Your task to perform on an android device: Open eBay Image 0: 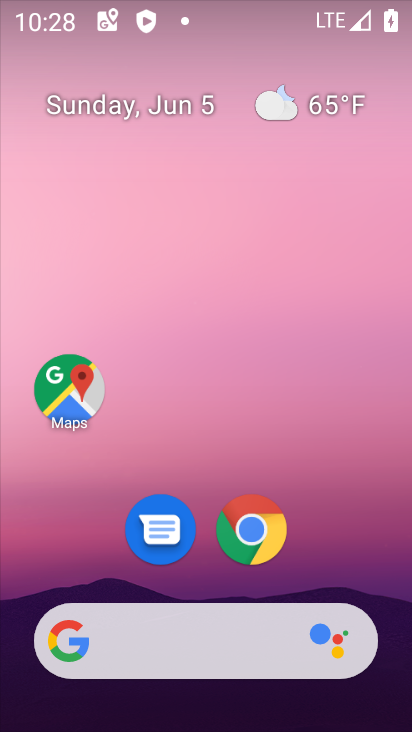
Step 0: click (187, 655)
Your task to perform on an android device: Open eBay Image 1: 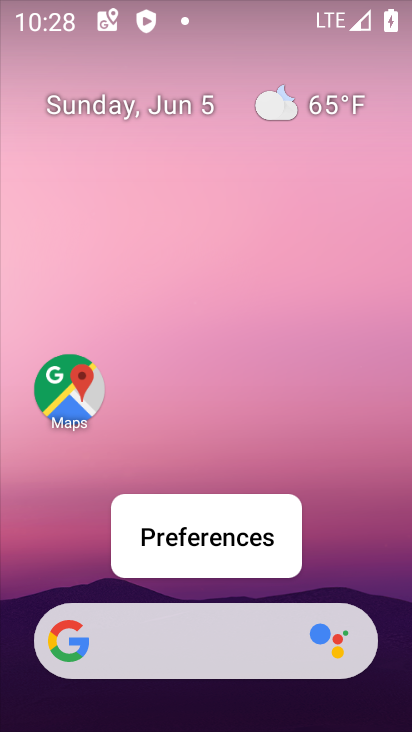
Step 1: click (267, 660)
Your task to perform on an android device: Open eBay Image 2: 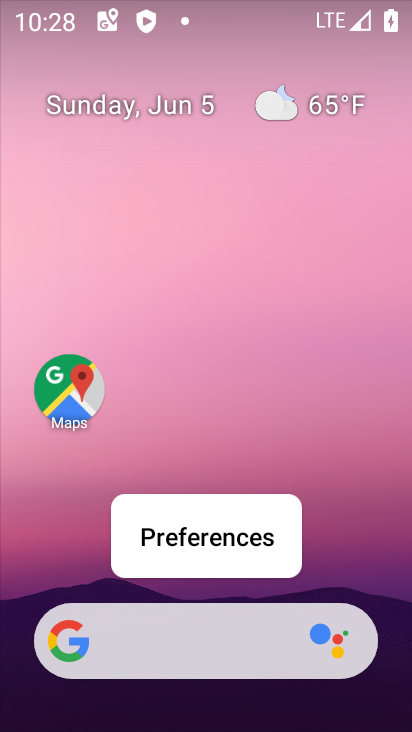
Step 2: click (266, 632)
Your task to perform on an android device: Open eBay Image 3: 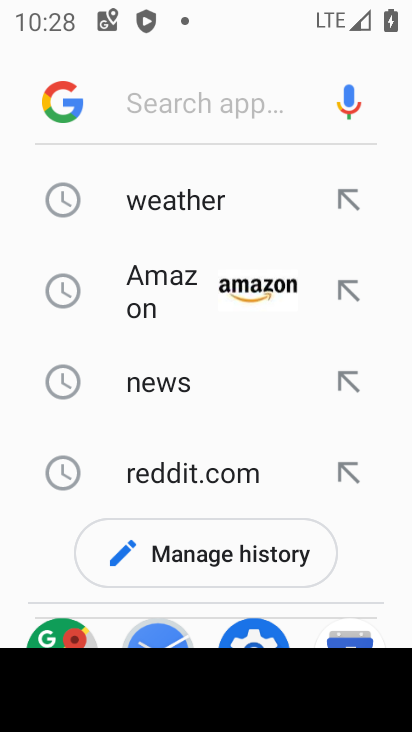
Step 3: type "ebay"
Your task to perform on an android device: Open eBay Image 4: 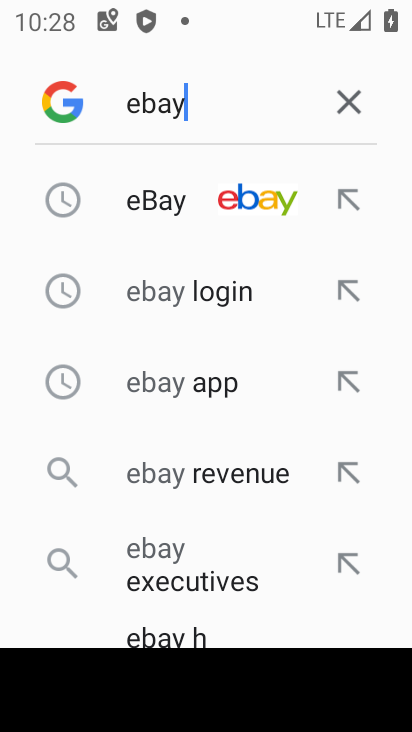
Step 4: click (289, 173)
Your task to perform on an android device: Open eBay Image 5: 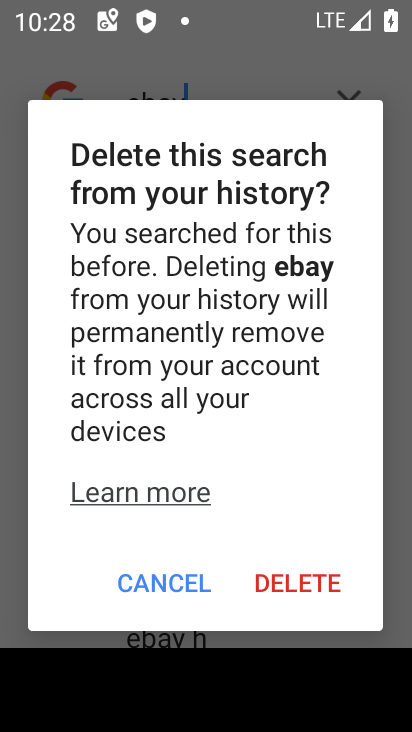
Step 5: click (173, 582)
Your task to perform on an android device: Open eBay Image 6: 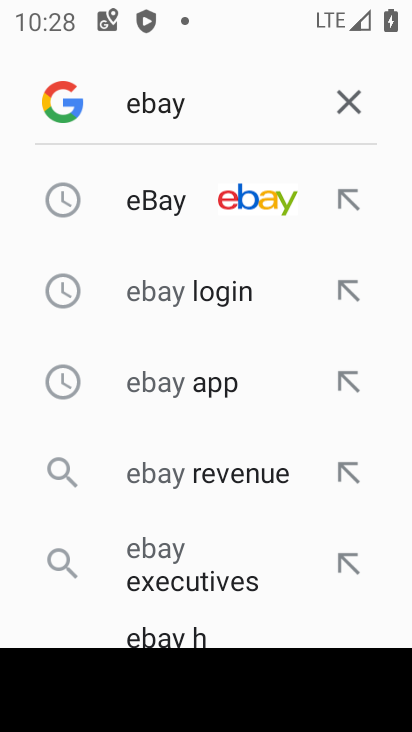
Step 6: click (270, 201)
Your task to perform on an android device: Open eBay Image 7: 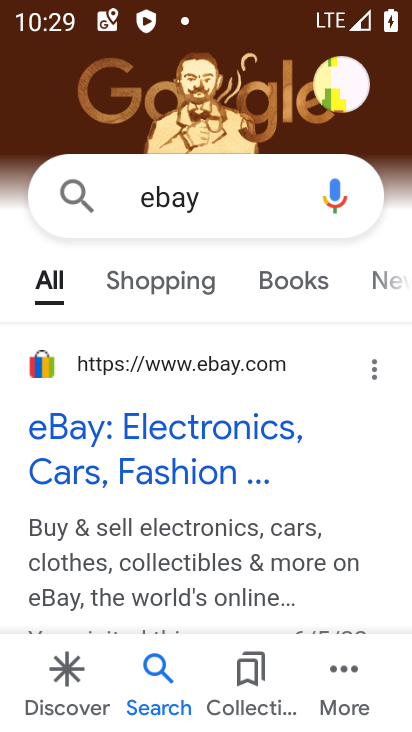
Step 7: click (182, 367)
Your task to perform on an android device: Open eBay Image 8: 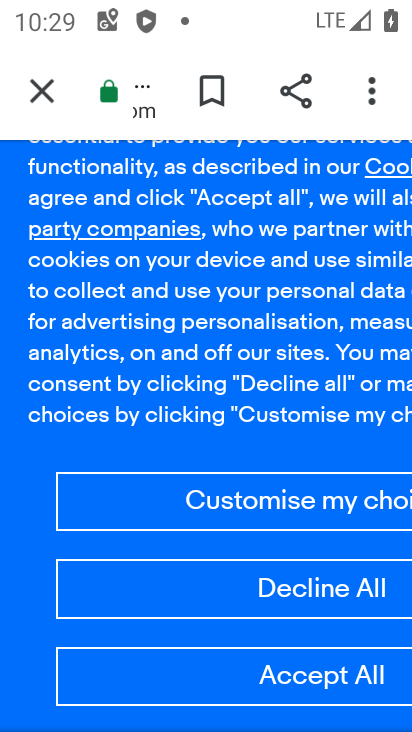
Step 8: task complete